Your task to perform on an android device: Go to settings Image 0: 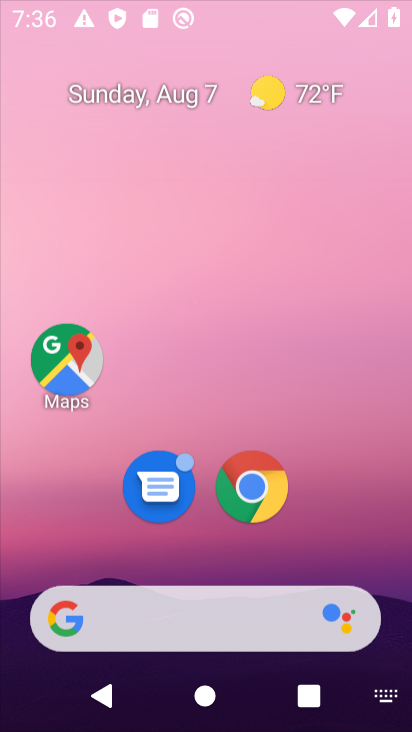
Step 0: click (366, 81)
Your task to perform on an android device: Go to settings Image 1: 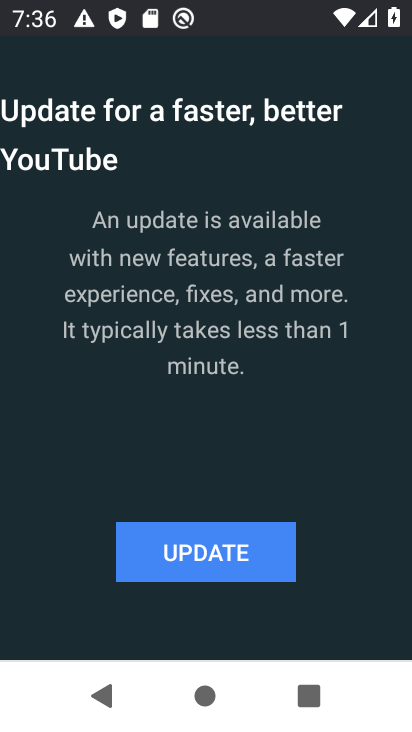
Step 1: press back button
Your task to perform on an android device: Go to settings Image 2: 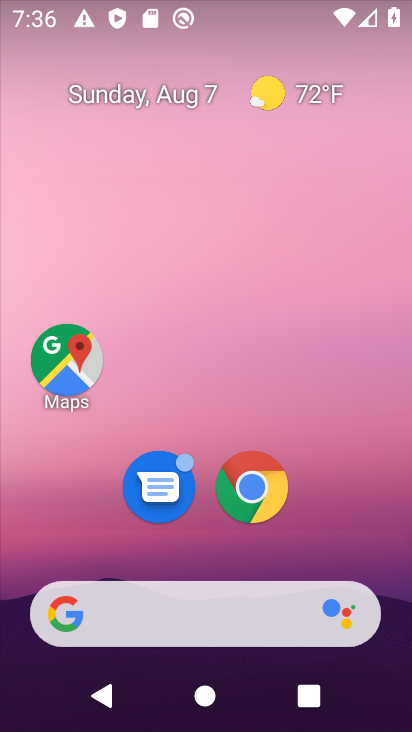
Step 2: drag from (387, 710) to (399, 41)
Your task to perform on an android device: Go to settings Image 3: 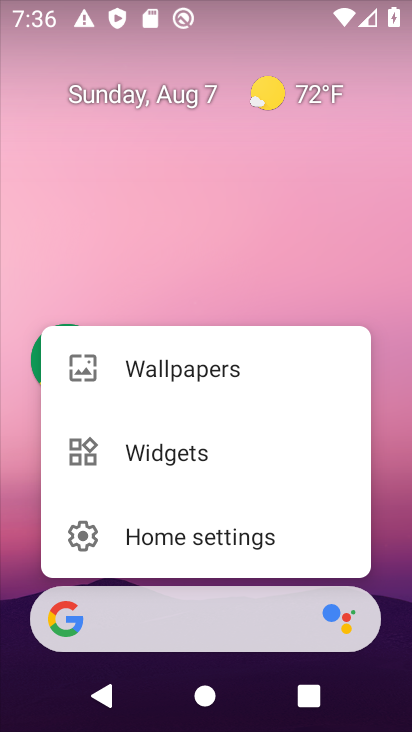
Step 3: press back button
Your task to perform on an android device: Go to settings Image 4: 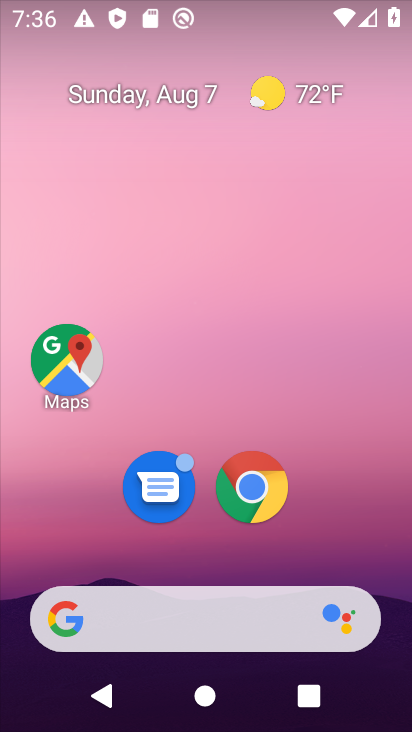
Step 4: drag from (388, 668) to (345, 147)
Your task to perform on an android device: Go to settings Image 5: 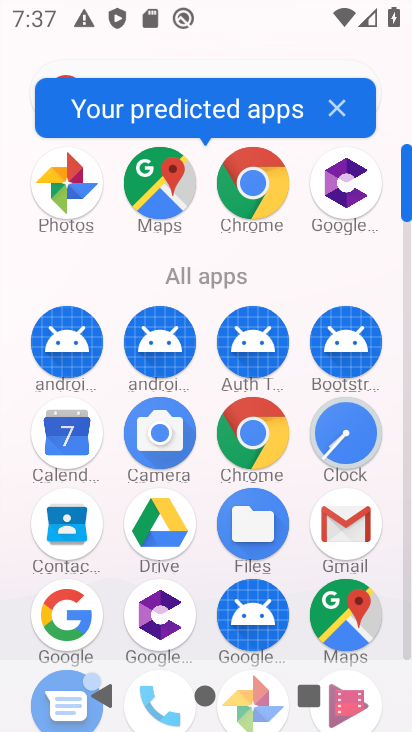
Step 5: drag from (191, 616) to (194, 231)
Your task to perform on an android device: Go to settings Image 6: 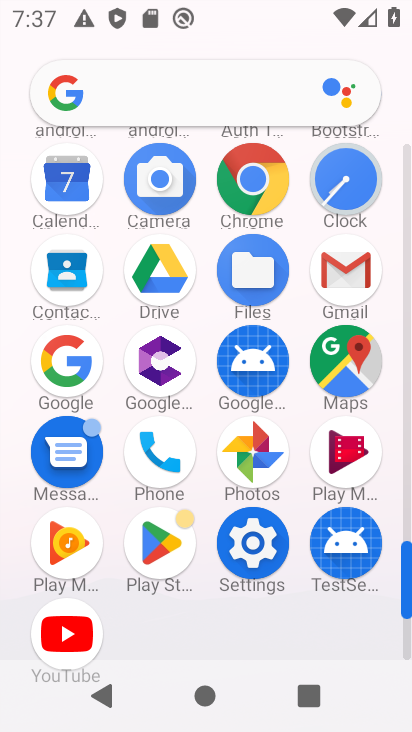
Step 6: click (246, 544)
Your task to perform on an android device: Go to settings Image 7: 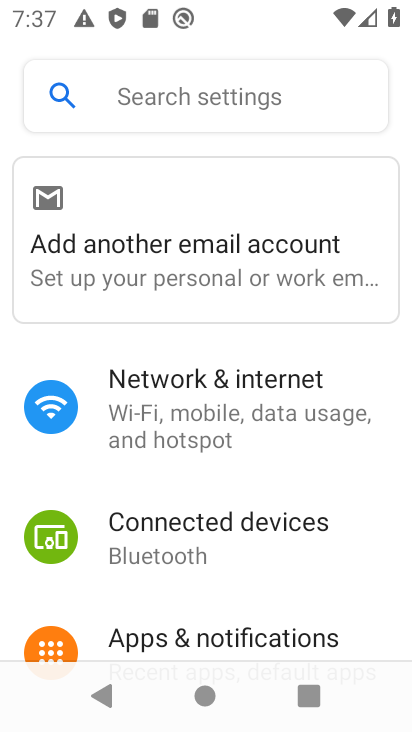
Step 7: task complete